Your task to perform on an android device: turn on data saver in the chrome app Image 0: 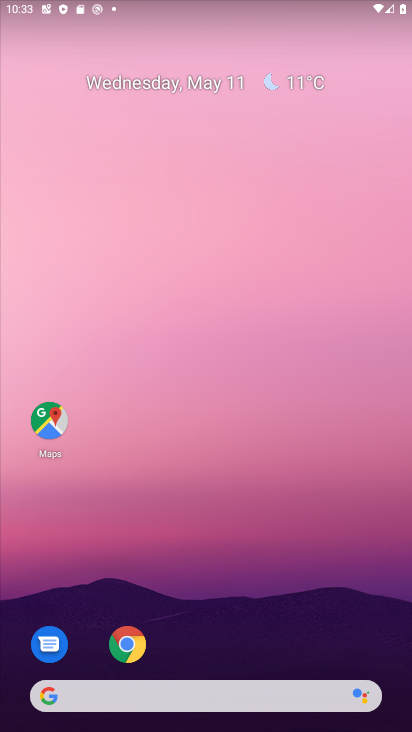
Step 0: drag from (212, 576) to (221, 105)
Your task to perform on an android device: turn on data saver in the chrome app Image 1: 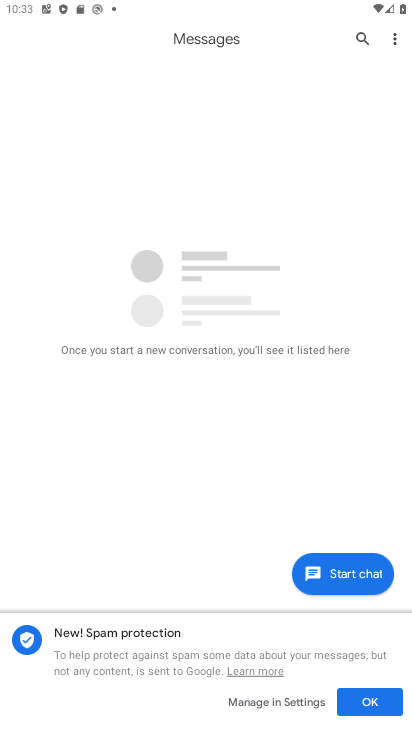
Step 1: press home button
Your task to perform on an android device: turn on data saver in the chrome app Image 2: 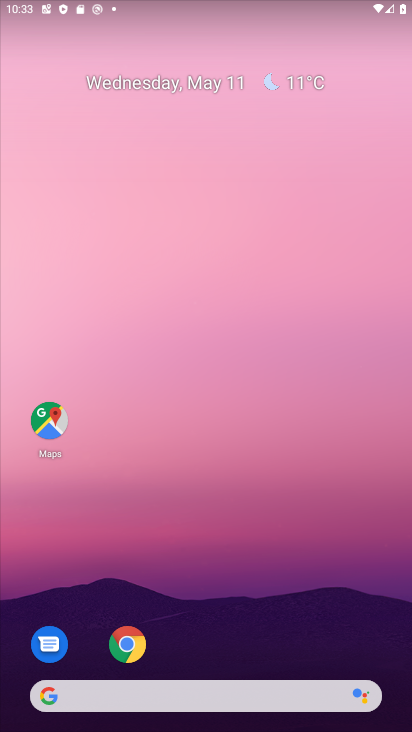
Step 2: click (125, 641)
Your task to perform on an android device: turn on data saver in the chrome app Image 3: 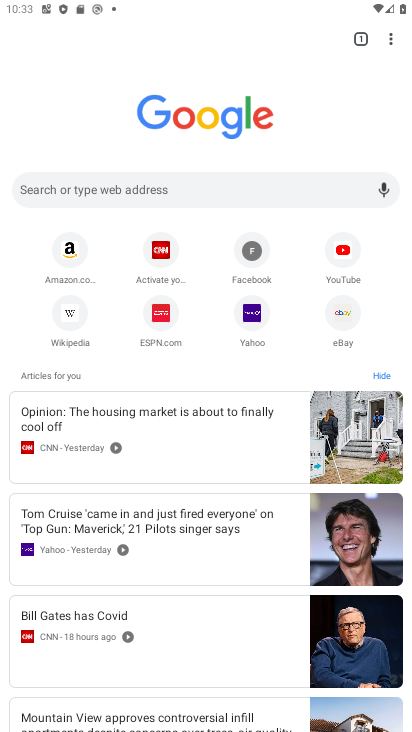
Step 3: click (390, 35)
Your task to perform on an android device: turn on data saver in the chrome app Image 4: 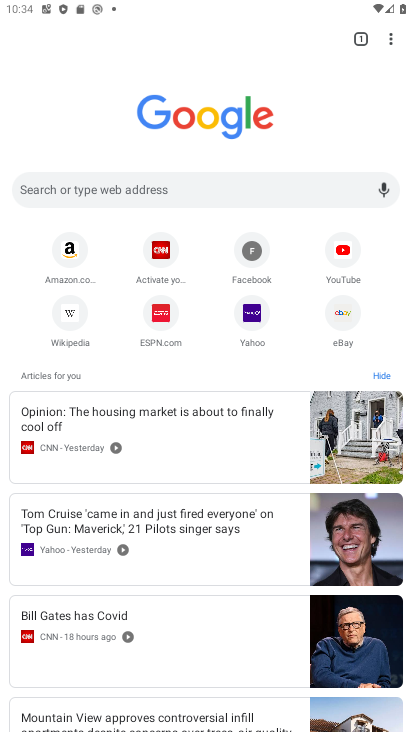
Step 4: click (389, 33)
Your task to perform on an android device: turn on data saver in the chrome app Image 5: 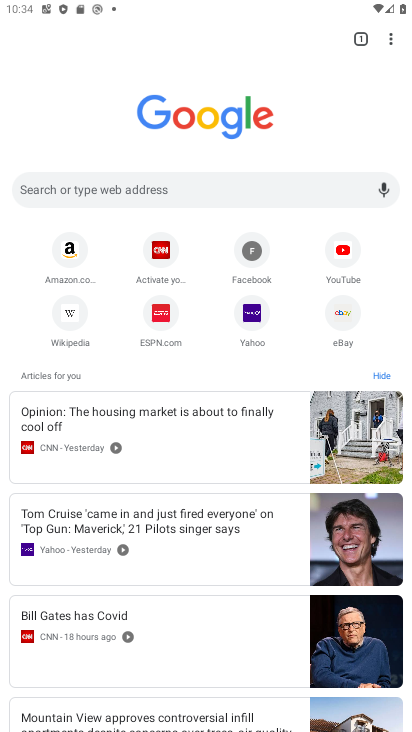
Step 5: click (390, 37)
Your task to perform on an android device: turn on data saver in the chrome app Image 6: 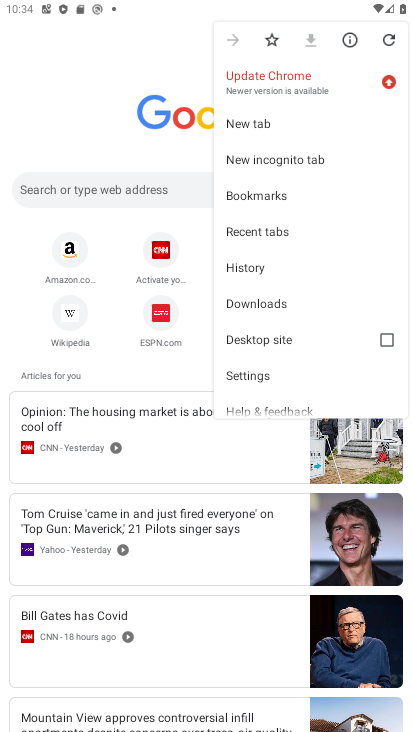
Step 6: click (274, 376)
Your task to perform on an android device: turn on data saver in the chrome app Image 7: 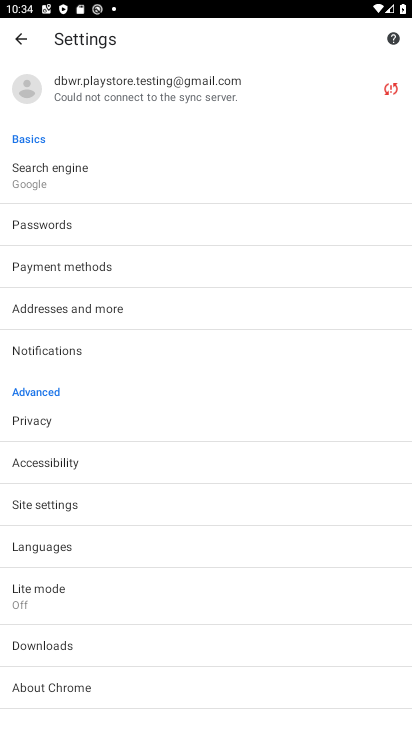
Step 7: click (77, 591)
Your task to perform on an android device: turn on data saver in the chrome app Image 8: 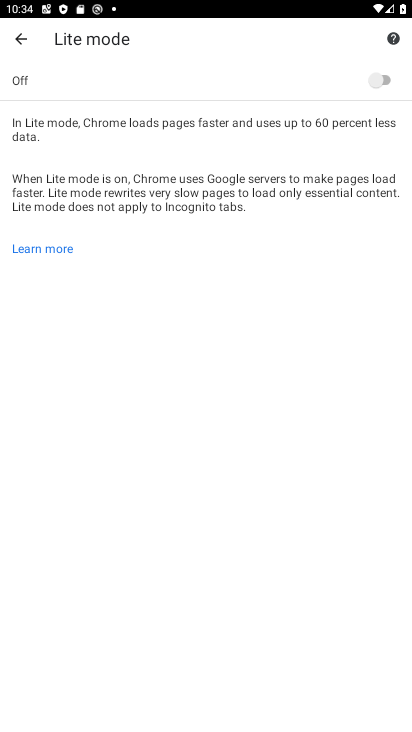
Step 8: click (383, 80)
Your task to perform on an android device: turn on data saver in the chrome app Image 9: 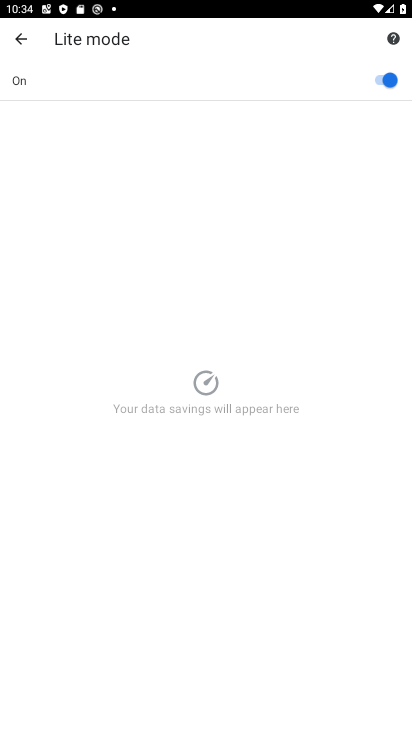
Step 9: task complete